Your task to perform on an android device: Turn on the flashlight Image 0: 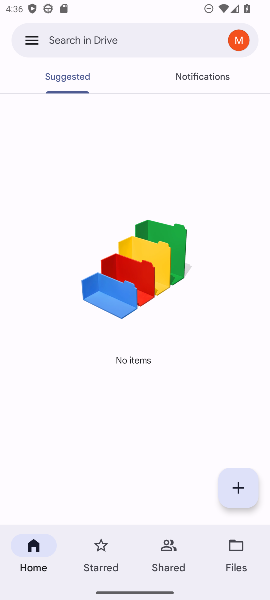
Step 0: press home button
Your task to perform on an android device: Turn on the flashlight Image 1: 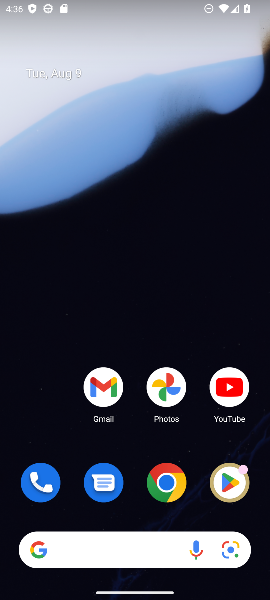
Step 1: drag from (133, 440) to (130, 111)
Your task to perform on an android device: Turn on the flashlight Image 2: 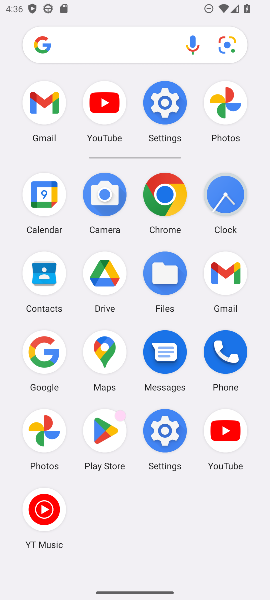
Step 2: click (151, 102)
Your task to perform on an android device: Turn on the flashlight Image 3: 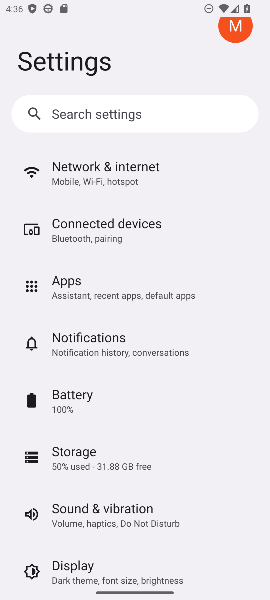
Step 3: task complete